Your task to perform on an android device: Go to Yahoo.com Image 0: 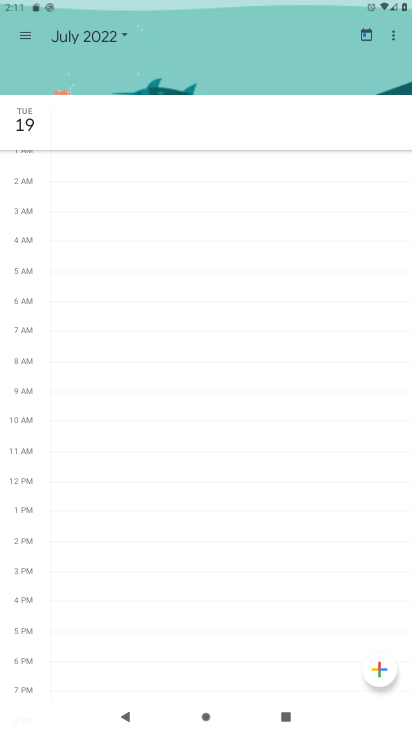
Step 0: press home button
Your task to perform on an android device: Go to Yahoo.com Image 1: 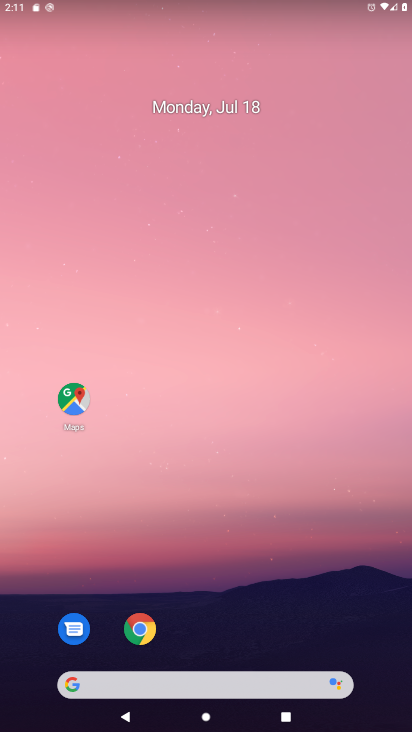
Step 1: click (139, 631)
Your task to perform on an android device: Go to Yahoo.com Image 2: 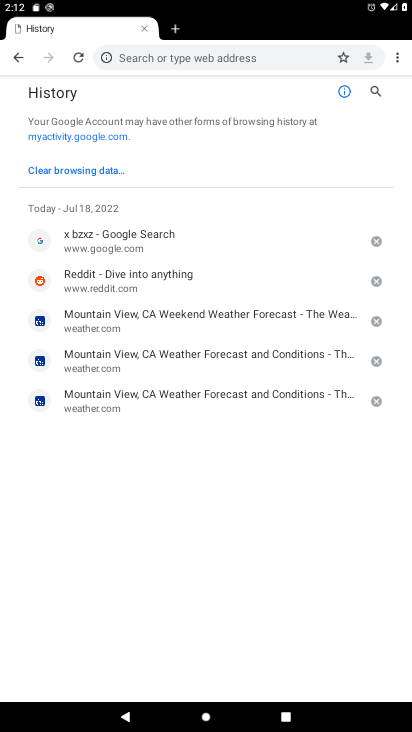
Step 2: click (213, 64)
Your task to perform on an android device: Go to Yahoo.com Image 3: 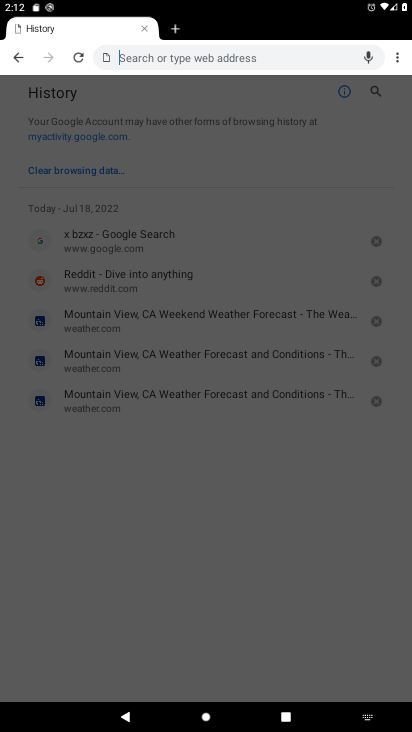
Step 3: type "www.yahoo.com"
Your task to perform on an android device: Go to Yahoo.com Image 4: 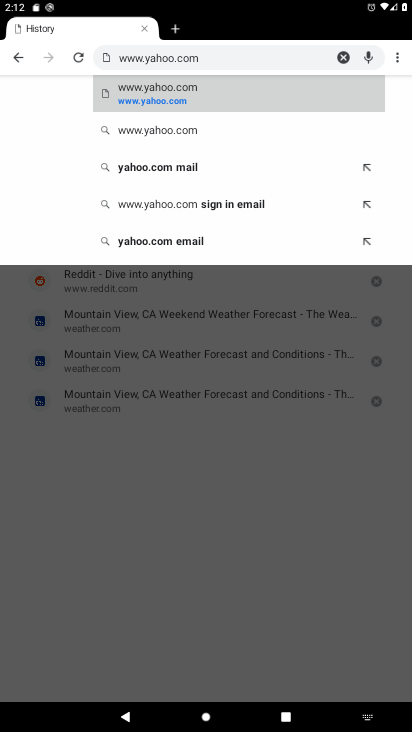
Step 4: click (128, 97)
Your task to perform on an android device: Go to Yahoo.com Image 5: 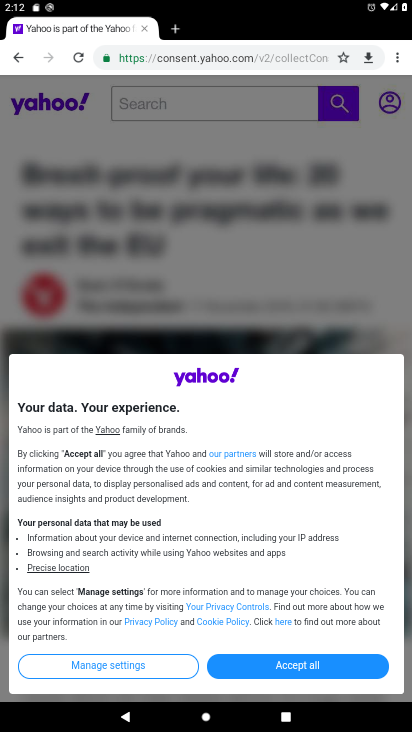
Step 5: task complete